Your task to perform on an android device: change notification settings in the gmail app Image 0: 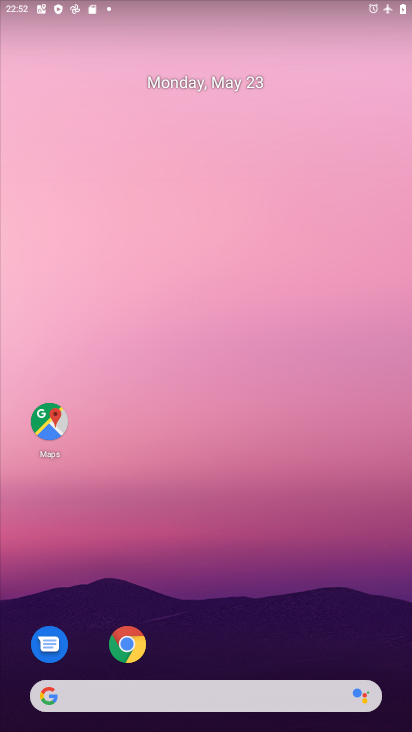
Step 0: drag from (168, 588) to (243, 142)
Your task to perform on an android device: change notification settings in the gmail app Image 1: 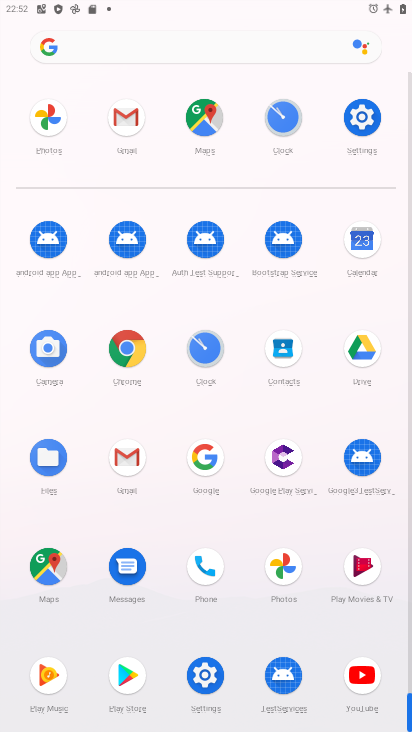
Step 1: click (113, 126)
Your task to perform on an android device: change notification settings in the gmail app Image 2: 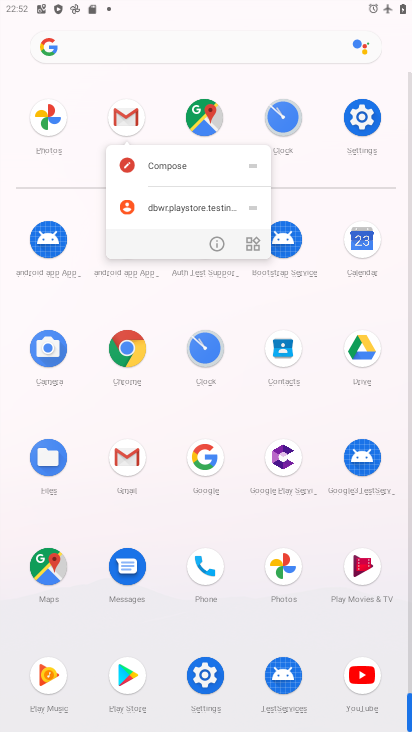
Step 2: click (219, 239)
Your task to perform on an android device: change notification settings in the gmail app Image 3: 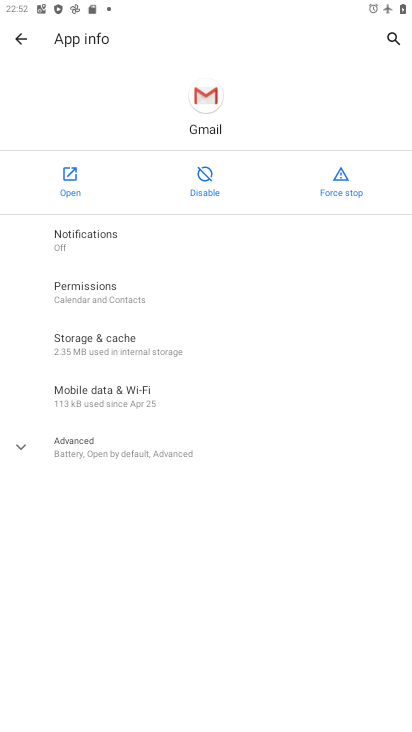
Step 3: click (197, 236)
Your task to perform on an android device: change notification settings in the gmail app Image 4: 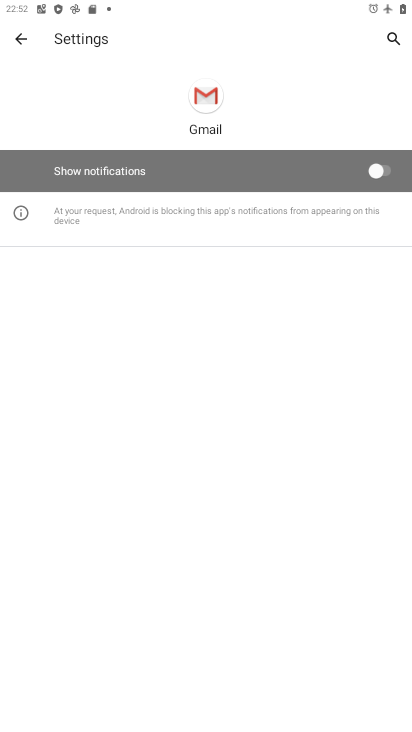
Step 4: click (378, 170)
Your task to perform on an android device: change notification settings in the gmail app Image 5: 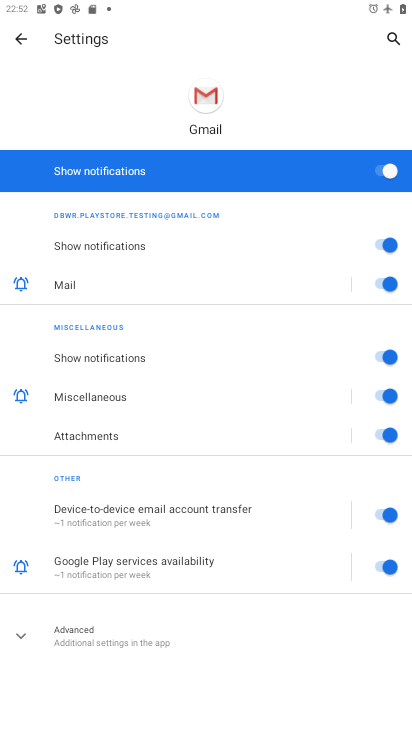
Step 5: task complete